Your task to perform on an android device: create a new album in the google photos Image 0: 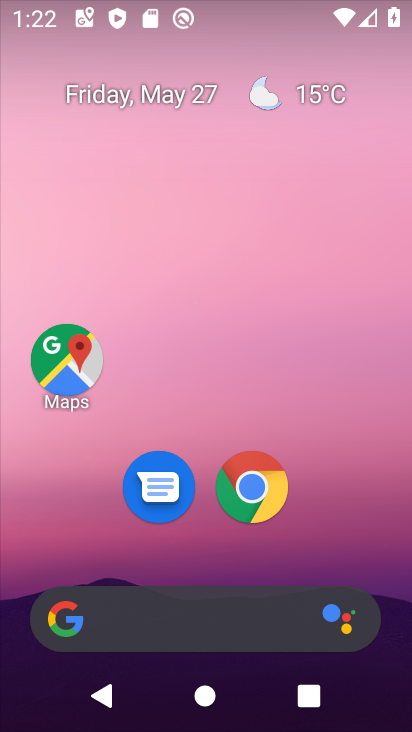
Step 0: drag from (186, 498) to (211, 156)
Your task to perform on an android device: create a new album in the google photos Image 1: 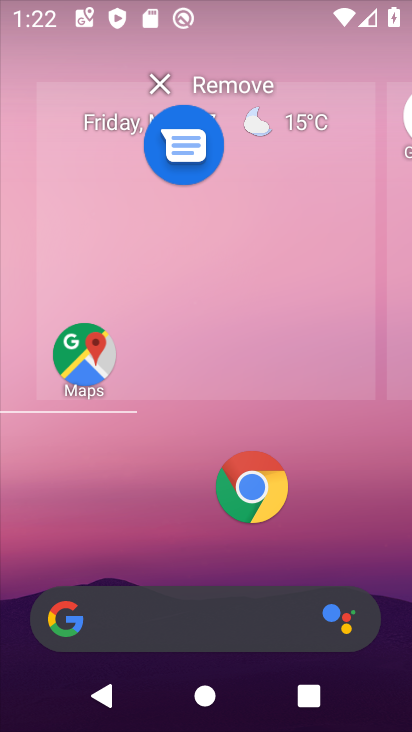
Step 1: drag from (205, 529) to (180, 163)
Your task to perform on an android device: create a new album in the google photos Image 2: 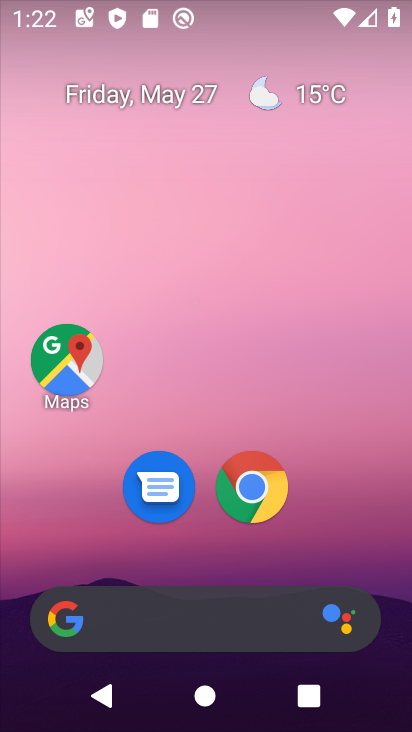
Step 2: drag from (193, 500) to (191, 170)
Your task to perform on an android device: create a new album in the google photos Image 3: 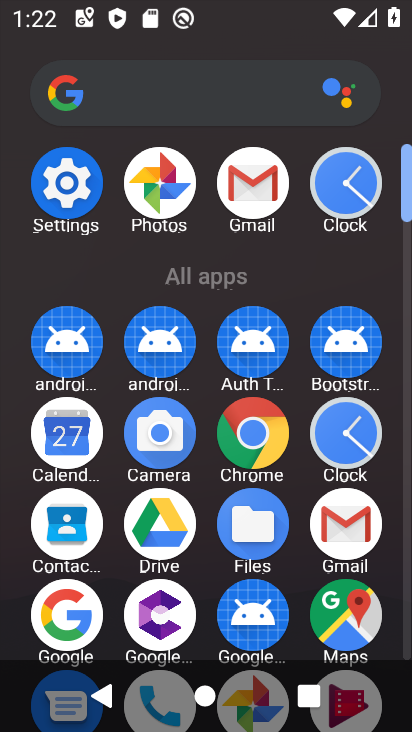
Step 3: click (160, 194)
Your task to perform on an android device: create a new album in the google photos Image 4: 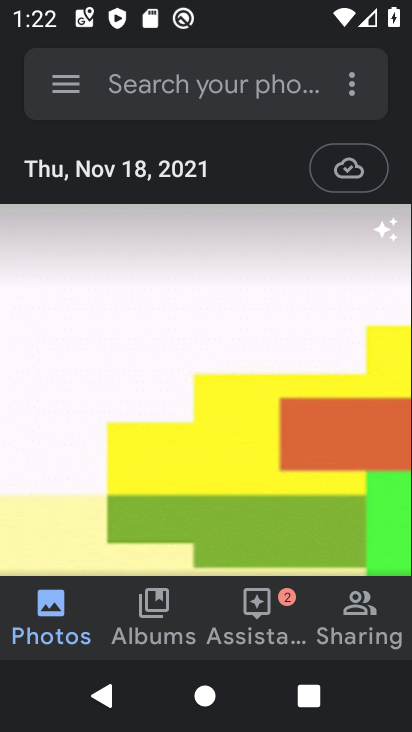
Step 4: click (155, 608)
Your task to perform on an android device: create a new album in the google photos Image 5: 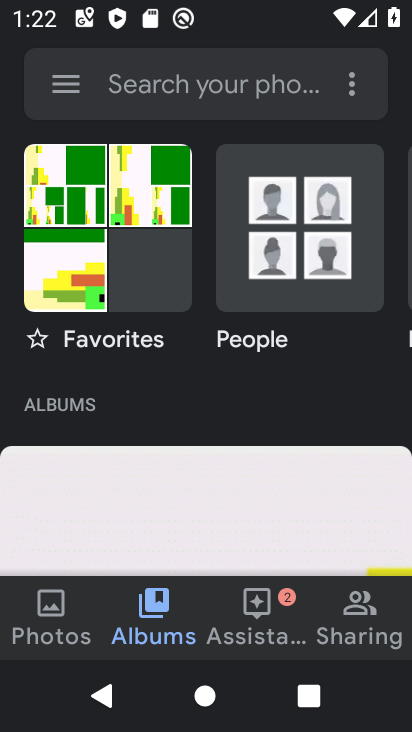
Step 5: click (371, 100)
Your task to perform on an android device: create a new album in the google photos Image 6: 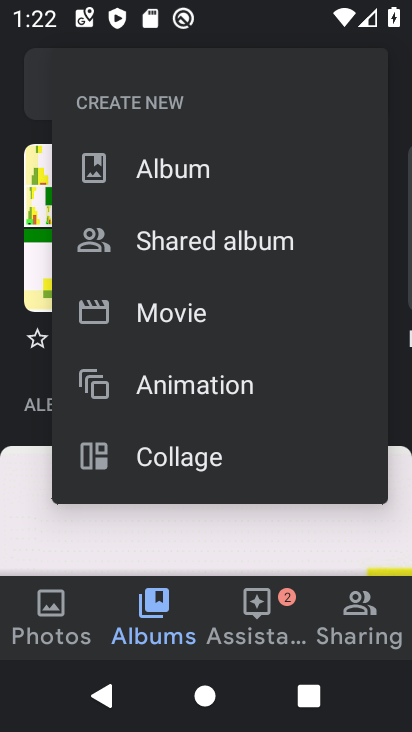
Step 6: click (243, 157)
Your task to perform on an android device: create a new album in the google photos Image 7: 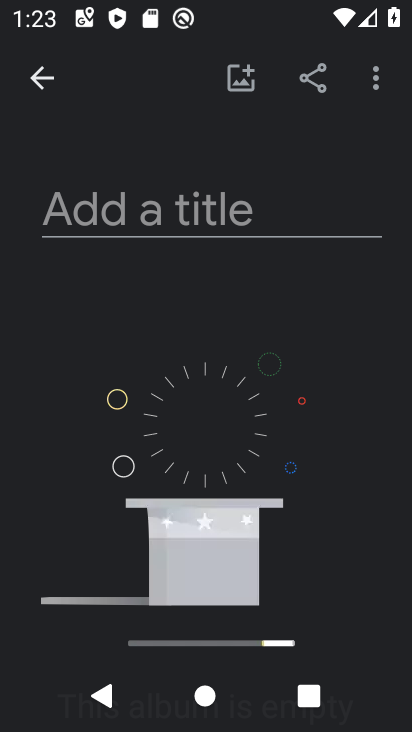
Step 7: click (232, 183)
Your task to perform on an android device: create a new album in the google photos Image 8: 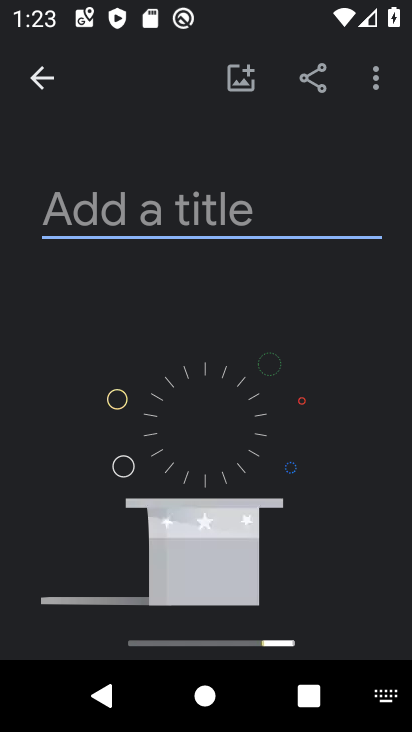
Step 8: type "zizo"
Your task to perform on an android device: create a new album in the google photos Image 9: 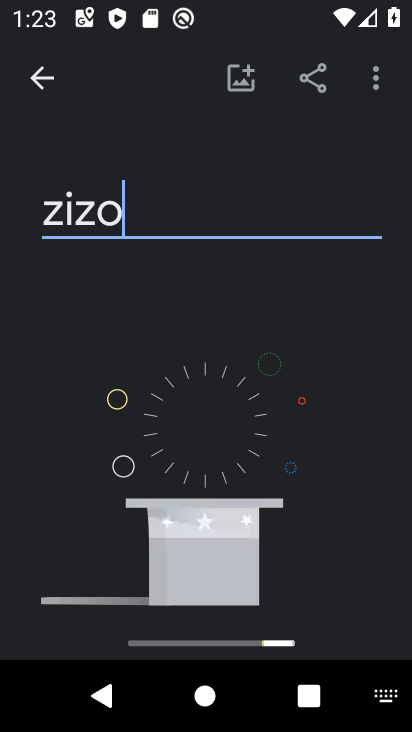
Step 9: click (251, 88)
Your task to perform on an android device: create a new album in the google photos Image 10: 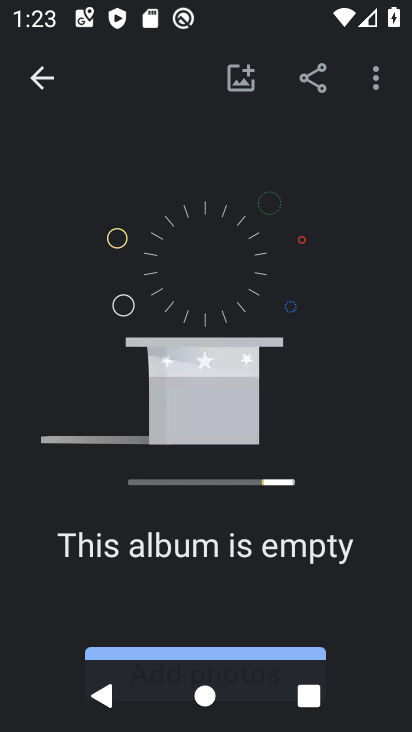
Step 10: click (251, 88)
Your task to perform on an android device: create a new album in the google photos Image 11: 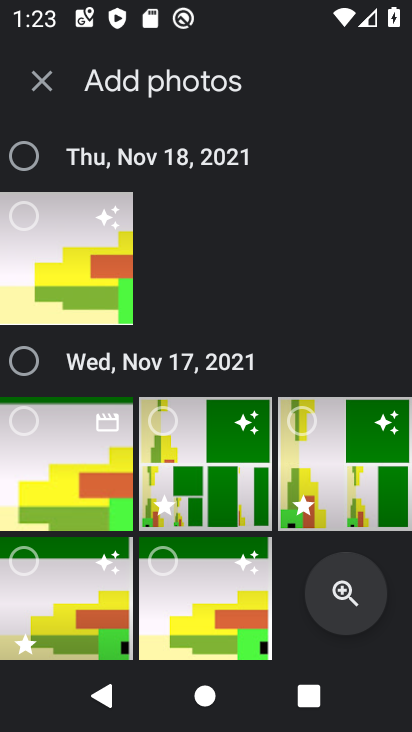
Step 11: click (32, 249)
Your task to perform on an android device: create a new album in the google photos Image 12: 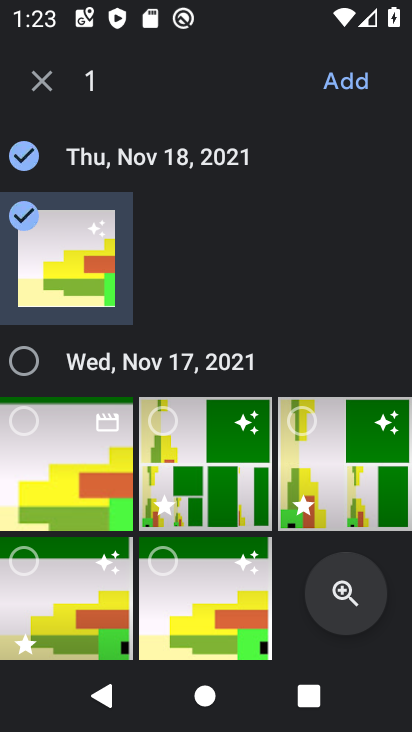
Step 12: click (351, 80)
Your task to perform on an android device: create a new album in the google photos Image 13: 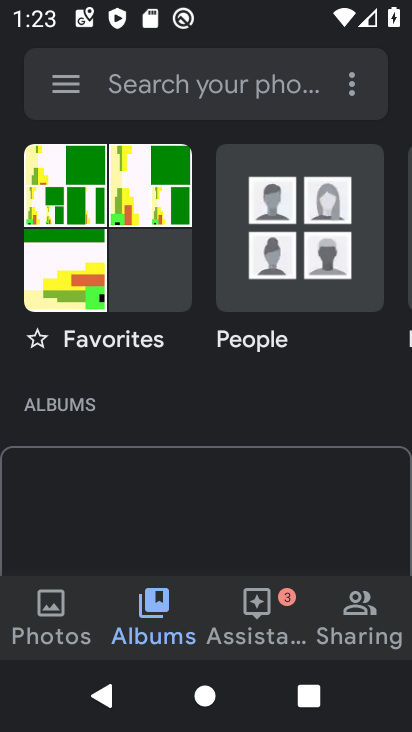
Step 13: task complete